Your task to perform on an android device: How much does a3 bedroom apartment rent for in Portland? Image 0: 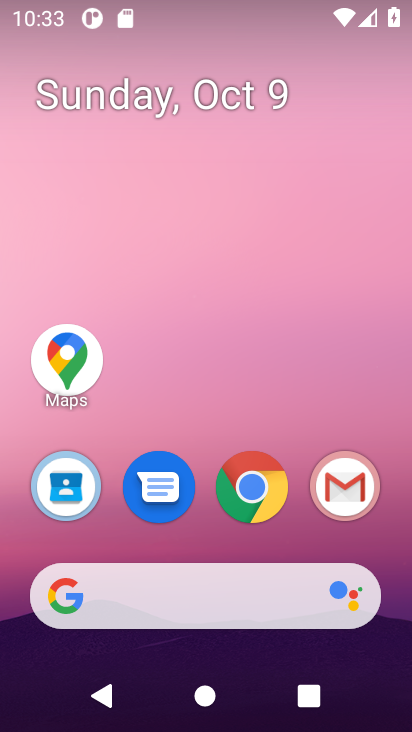
Step 0: click (269, 491)
Your task to perform on an android device: How much does a3 bedroom apartment rent for in Portland? Image 1: 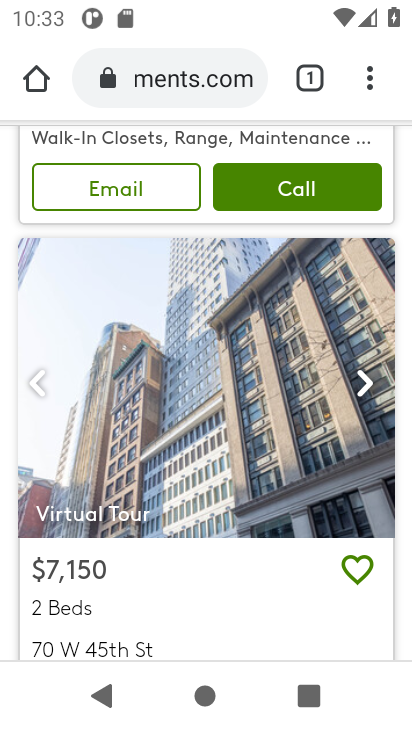
Step 1: click (188, 68)
Your task to perform on an android device: How much does a3 bedroom apartment rent for in Portland? Image 2: 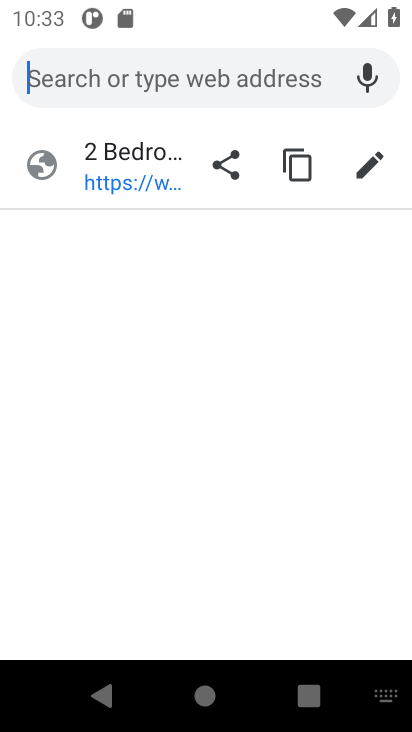
Step 2: type "3 bedroom apartment rent in portland"
Your task to perform on an android device: How much does a3 bedroom apartment rent for in Portland? Image 3: 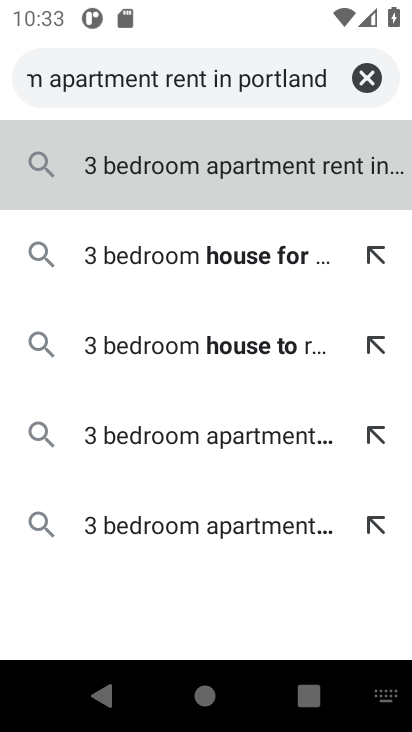
Step 3: press enter
Your task to perform on an android device: How much does a3 bedroom apartment rent for in Portland? Image 4: 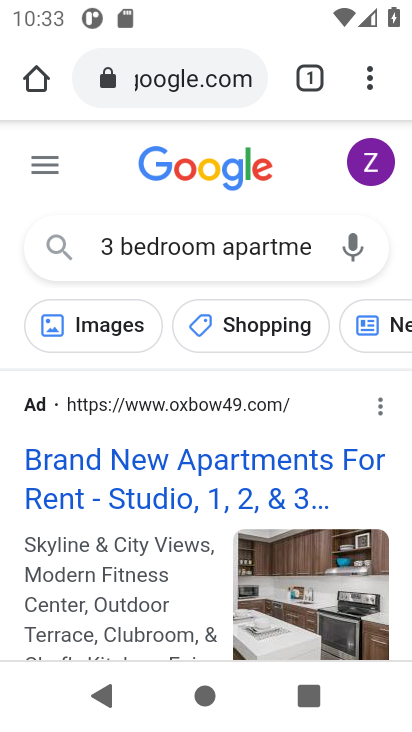
Step 4: drag from (164, 556) to (176, 218)
Your task to perform on an android device: How much does a3 bedroom apartment rent for in Portland? Image 5: 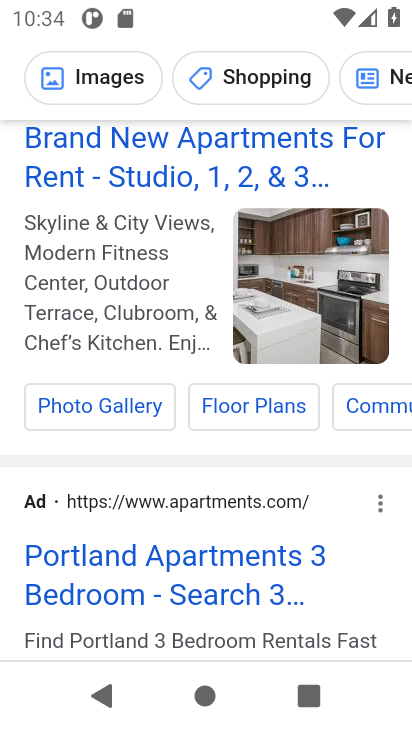
Step 5: click (127, 580)
Your task to perform on an android device: How much does a3 bedroom apartment rent for in Portland? Image 6: 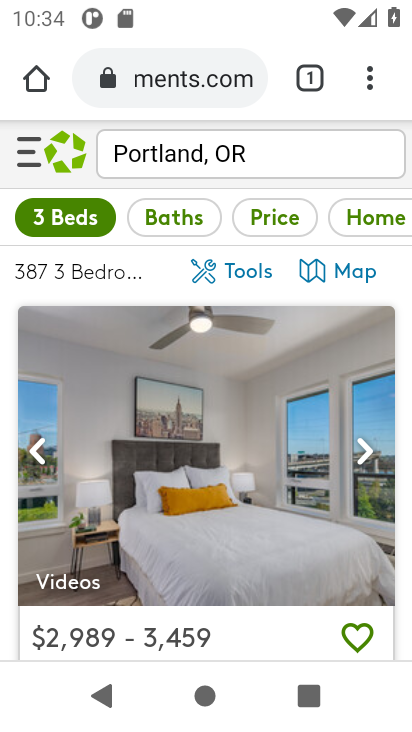
Step 6: task complete